Your task to perform on an android device: empty trash in google photos Image 0: 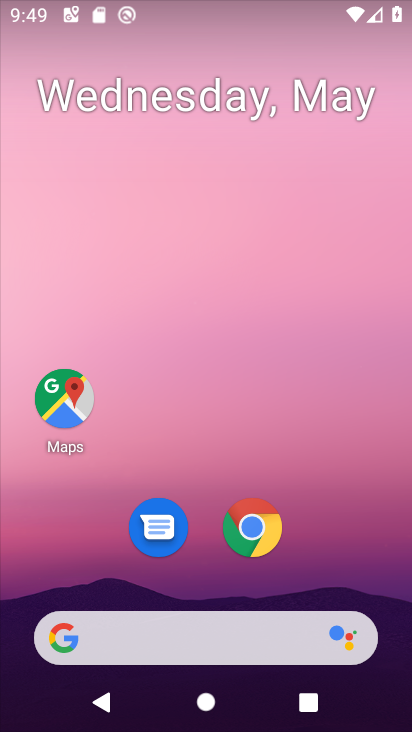
Step 0: drag from (340, 531) to (346, 57)
Your task to perform on an android device: empty trash in google photos Image 1: 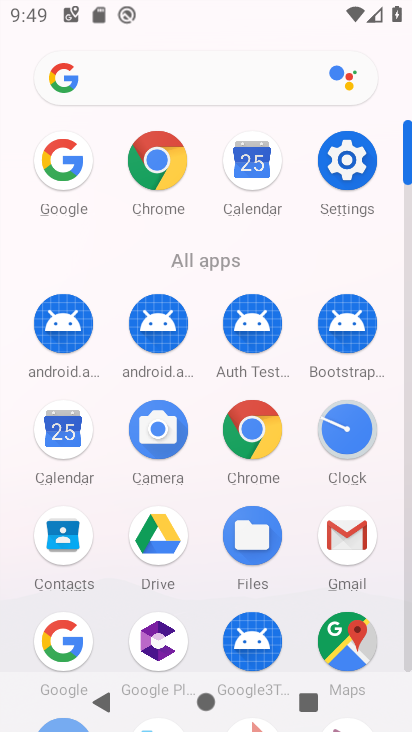
Step 1: drag from (181, 554) to (207, 175)
Your task to perform on an android device: empty trash in google photos Image 2: 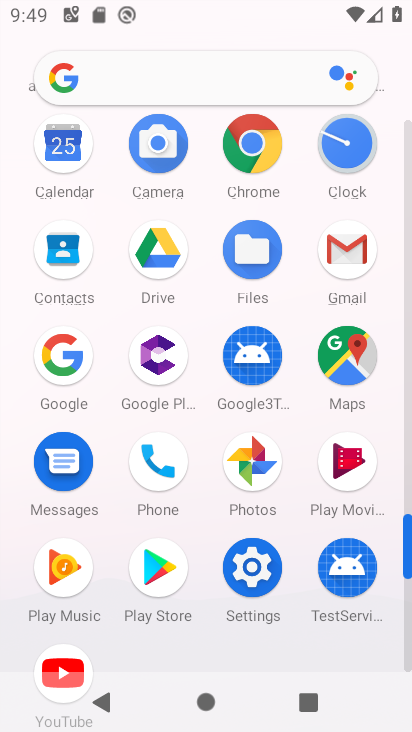
Step 2: click (251, 458)
Your task to perform on an android device: empty trash in google photos Image 3: 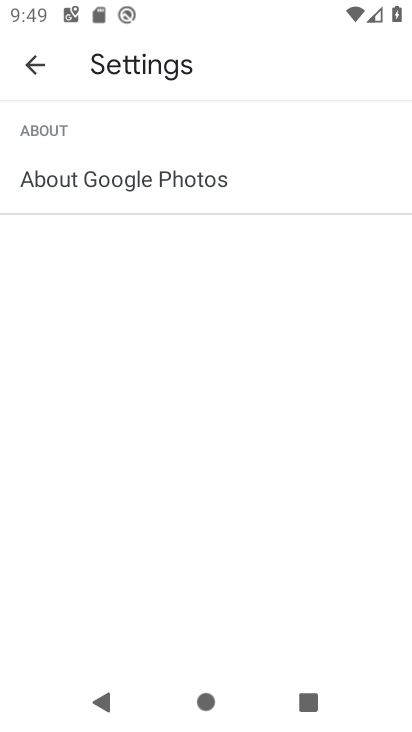
Step 3: press back button
Your task to perform on an android device: empty trash in google photos Image 4: 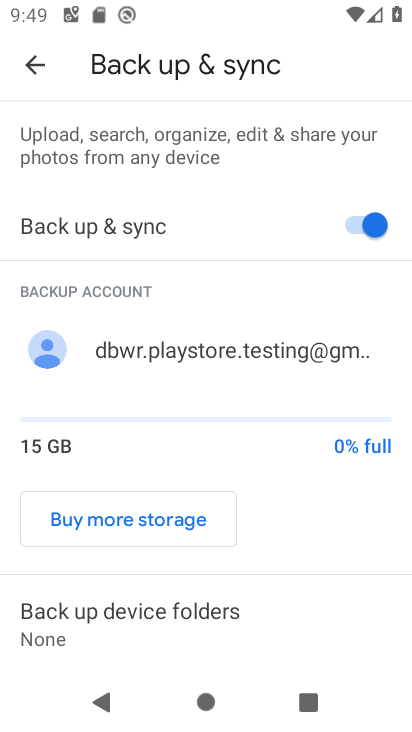
Step 4: press back button
Your task to perform on an android device: empty trash in google photos Image 5: 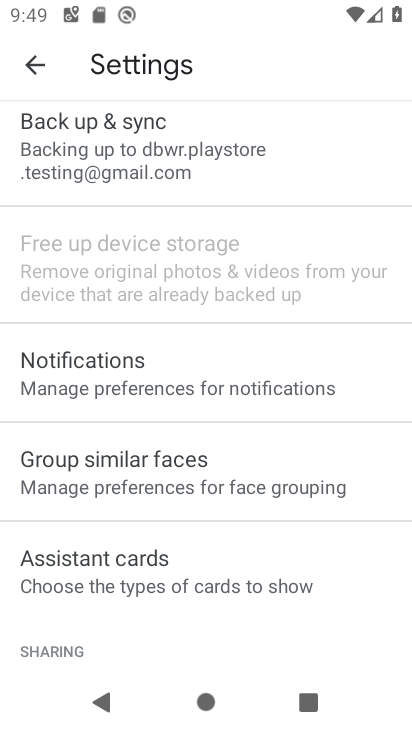
Step 5: press back button
Your task to perform on an android device: empty trash in google photos Image 6: 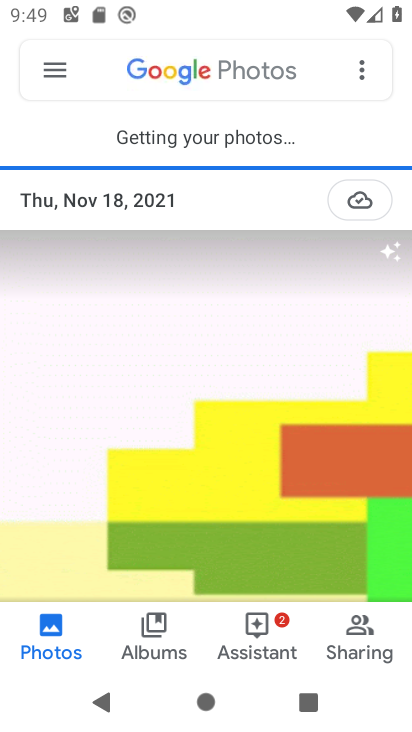
Step 6: click (49, 60)
Your task to perform on an android device: empty trash in google photos Image 7: 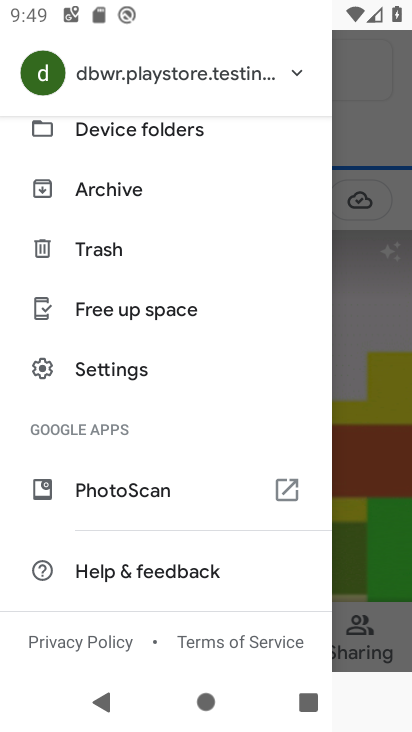
Step 7: click (110, 249)
Your task to perform on an android device: empty trash in google photos Image 8: 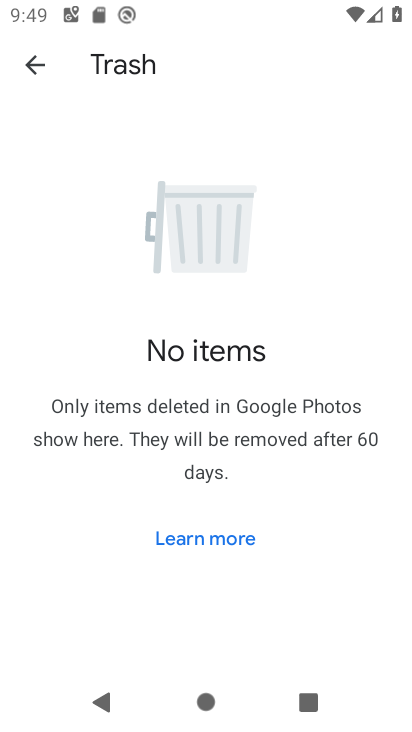
Step 8: task complete